Your task to perform on an android device: Look up the best rated headphones on Walmart. Image 0: 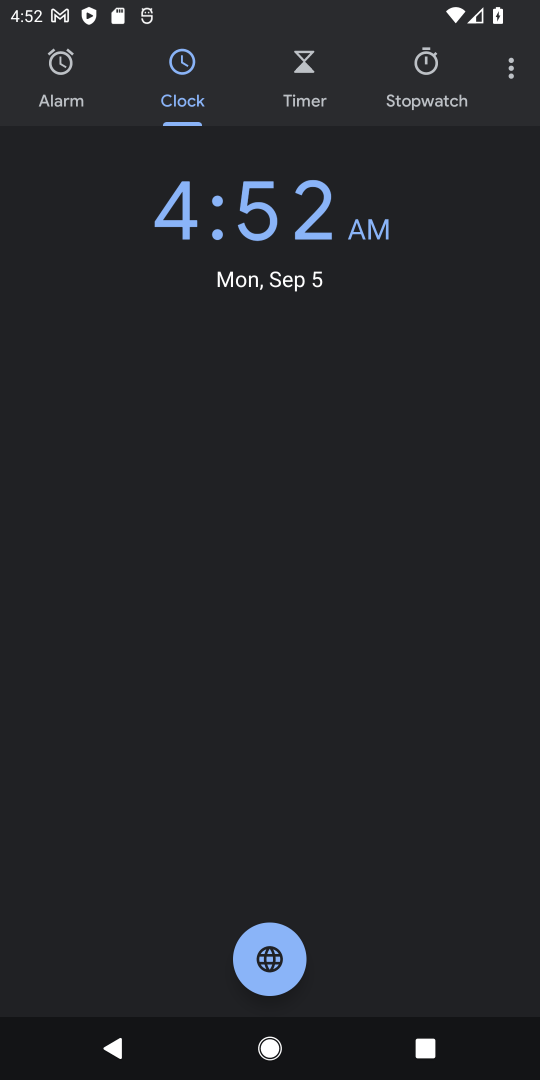
Step 0: press home button
Your task to perform on an android device: Look up the best rated headphones on Walmart. Image 1: 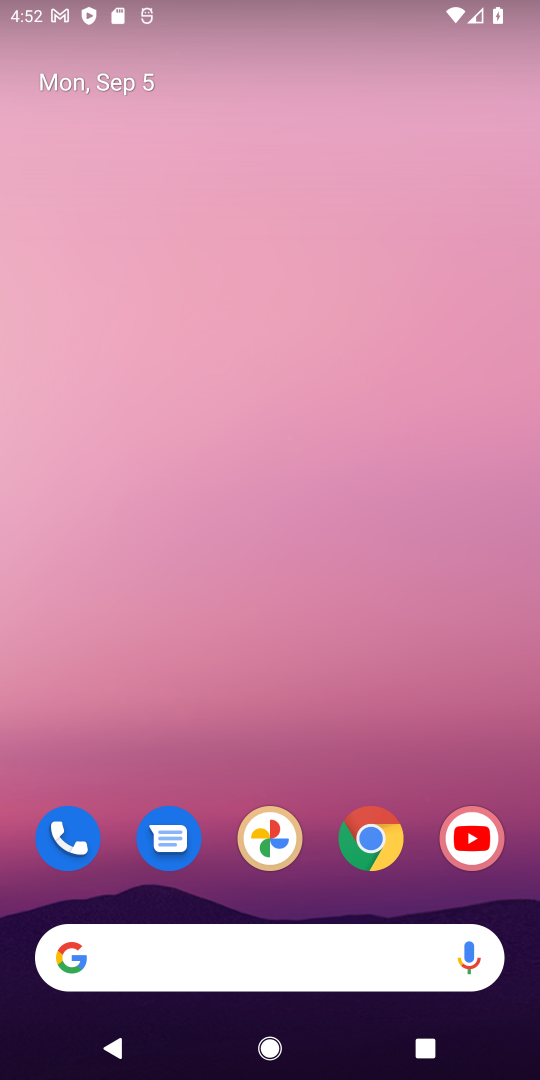
Step 1: drag from (335, 876) to (406, 46)
Your task to perform on an android device: Look up the best rated headphones on Walmart. Image 2: 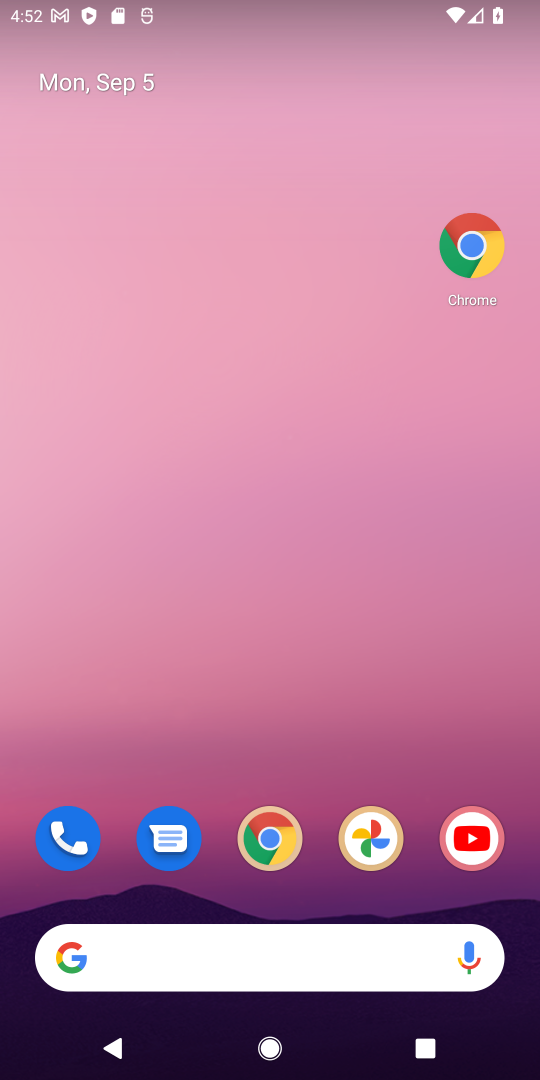
Step 2: click (478, 255)
Your task to perform on an android device: Look up the best rated headphones on Walmart. Image 3: 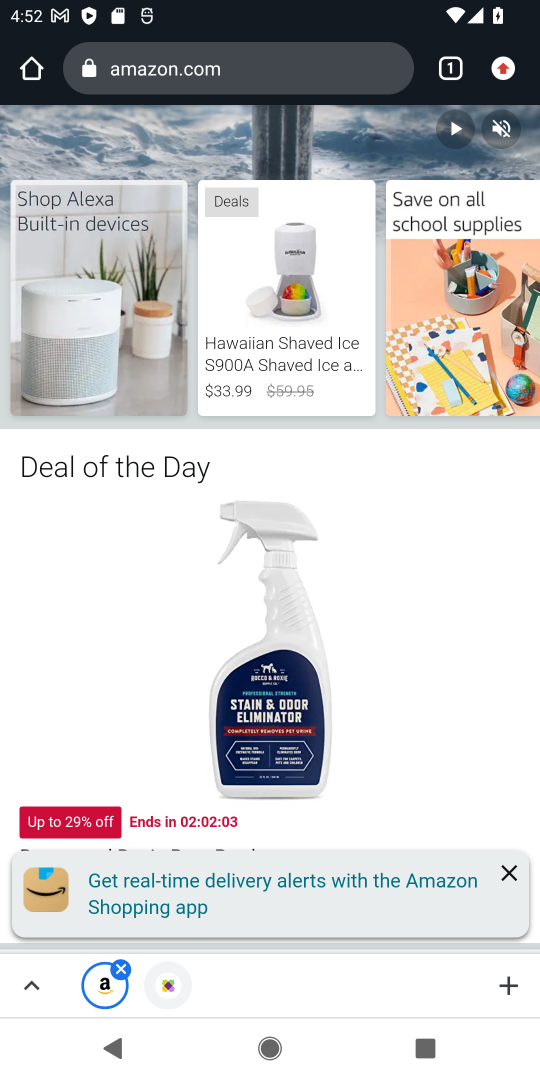
Step 3: click (308, 72)
Your task to perform on an android device: Look up the best rated headphones on Walmart. Image 4: 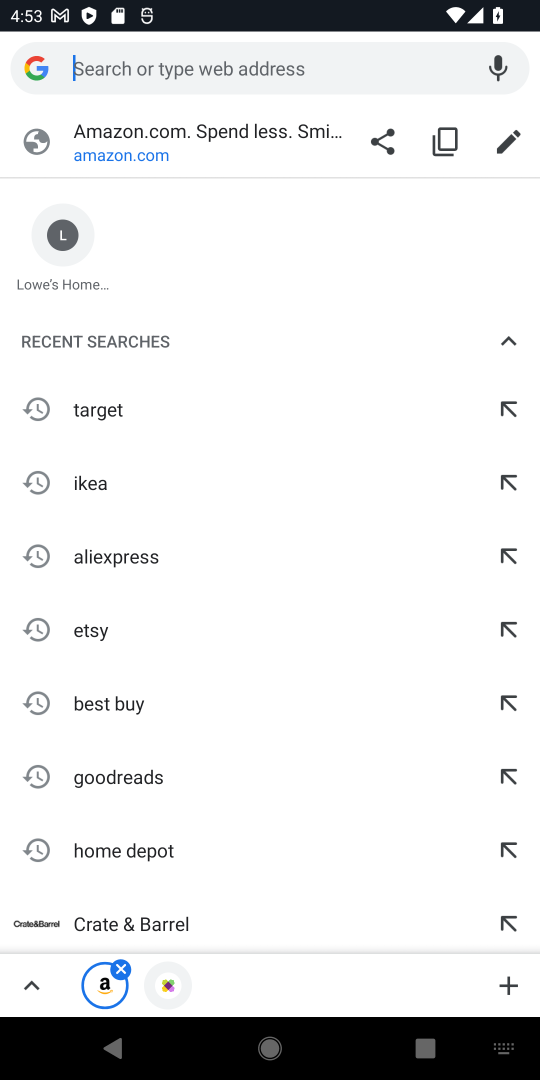
Step 4: type "Walmart."
Your task to perform on an android device: Look up the best rated headphones on Walmart. Image 5: 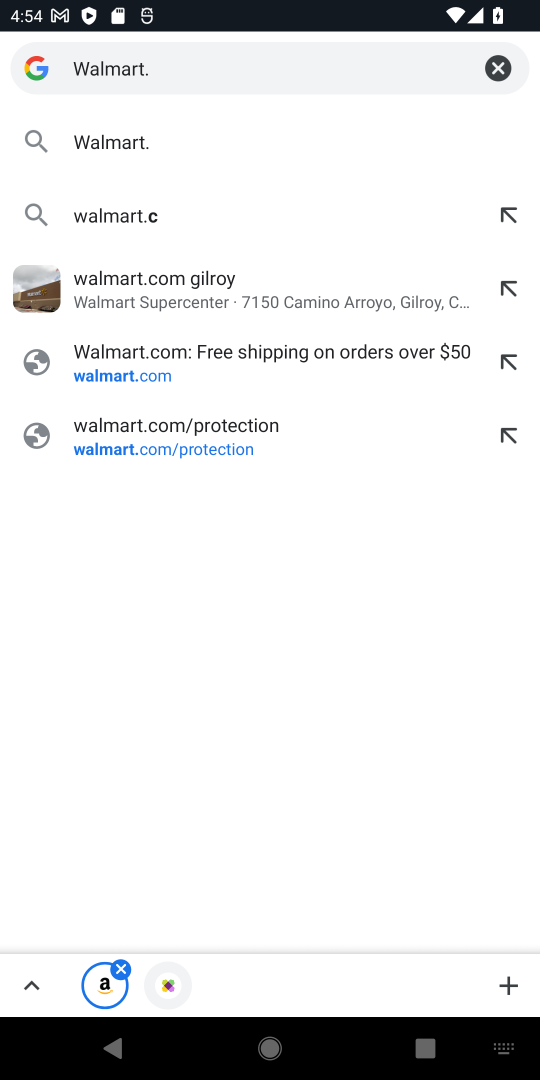
Step 5: click (84, 136)
Your task to perform on an android device: Look up the best rated headphones on Walmart. Image 6: 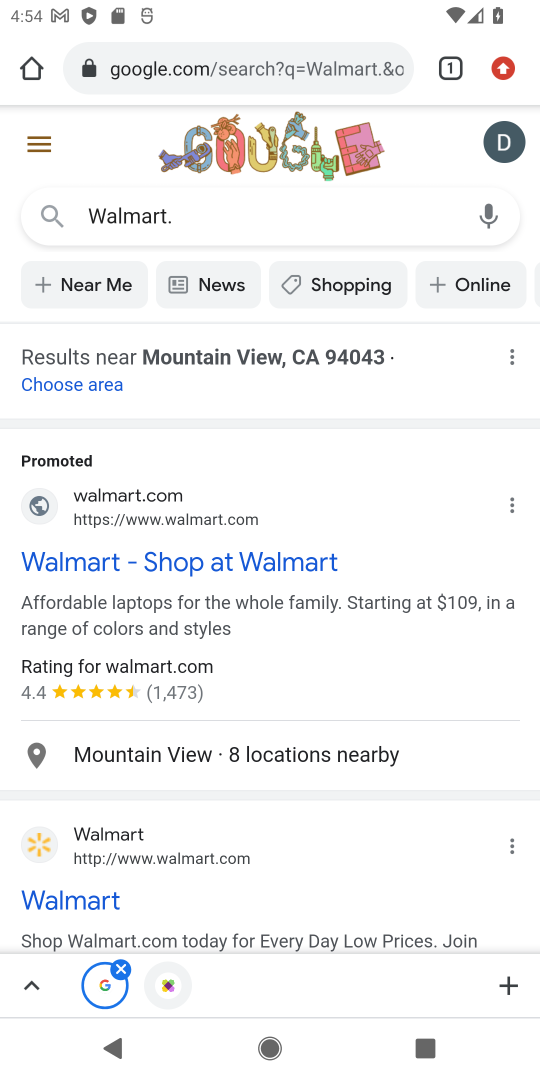
Step 6: click (168, 567)
Your task to perform on an android device: Look up the best rated headphones on Walmart. Image 7: 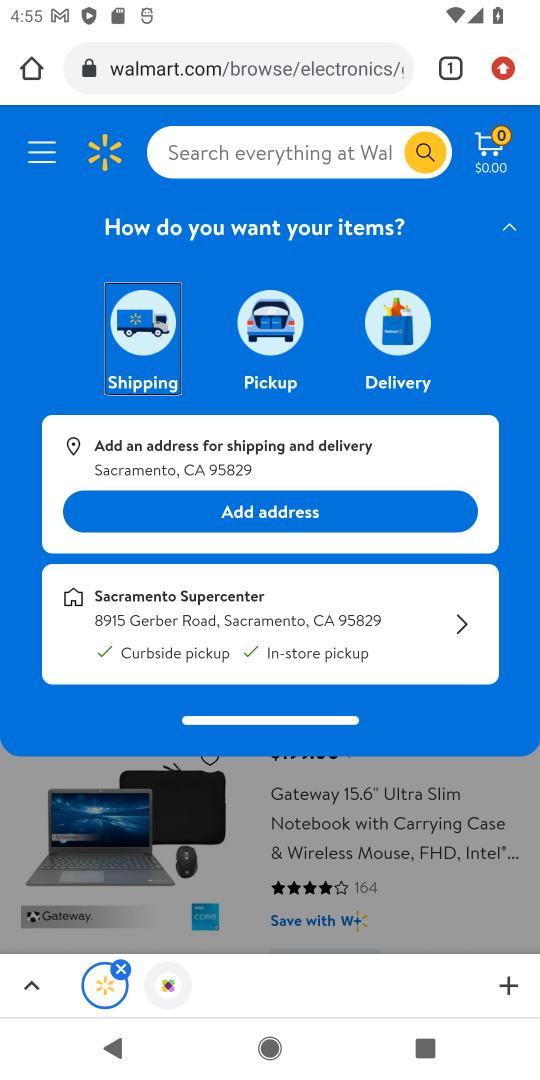
Step 7: type " rated headphones"
Your task to perform on an android device: Look up the best rated headphones on Walmart. Image 8: 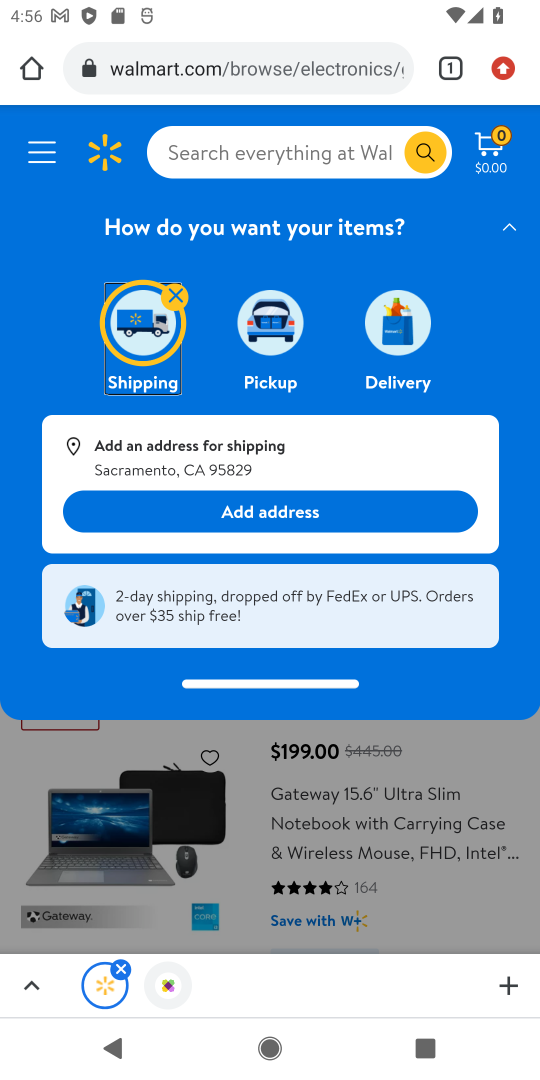
Step 8: task complete